Your task to perform on an android device: Open the Play Movies app and select the watchlist tab. Image 0: 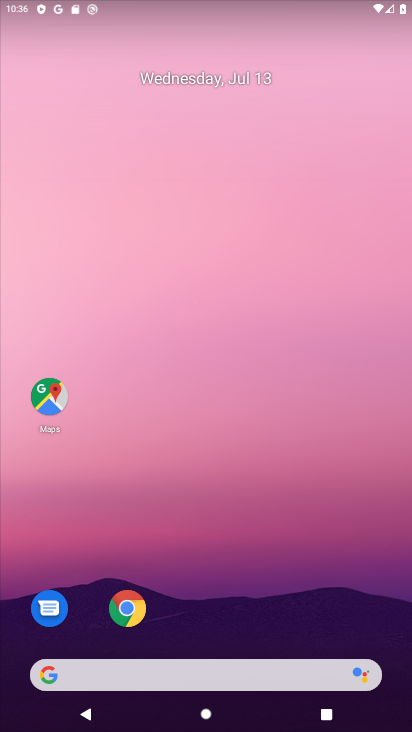
Step 0: drag from (274, 596) to (410, 38)
Your task to perform on an android device: Open the Play Movies app and select the watchlist tab. Image 1: 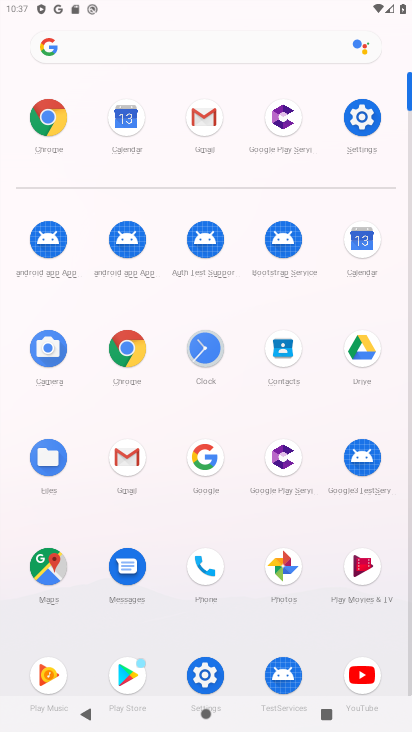
Step 1: click (361, 590)
Your task to perform on an android device: Open the Play Movies app and select the watchlist tab. Image 2: 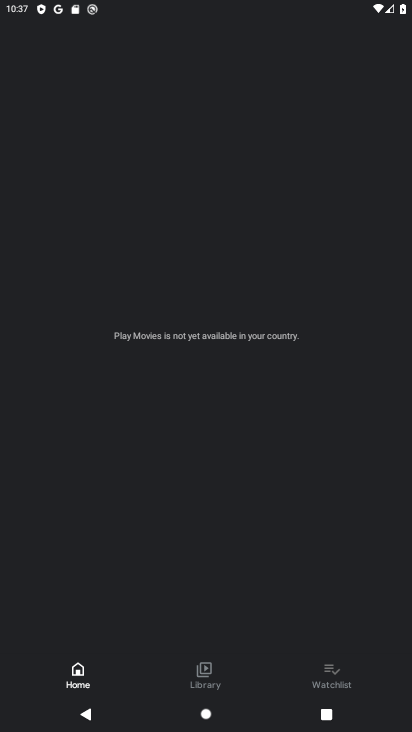
Step 2: click (325, 670)
Your task to perform on an android device: Open the Play Movies app and select the watchlist tab. Image 3: 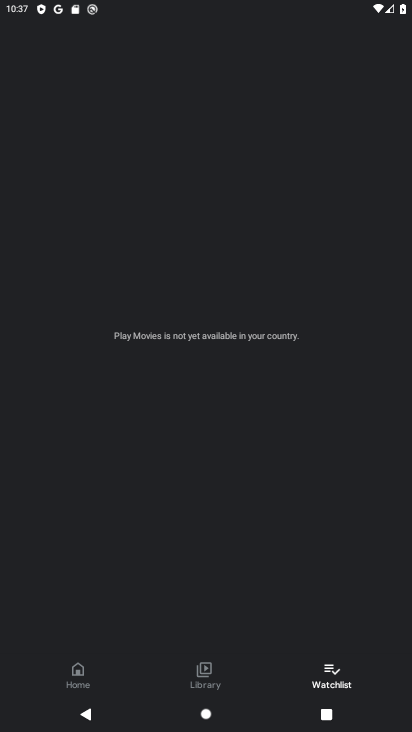
Step 3: task complete